Your task to perform on an android device: Search for the best rated 3d printer on Amazon. Image 0: 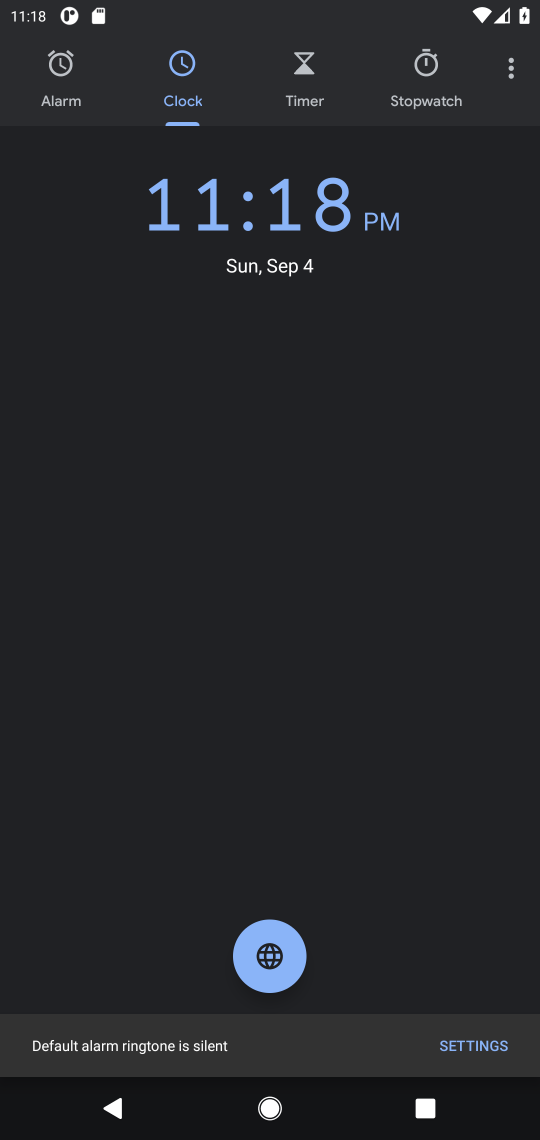
Step 0: press home button
Your task to perform on an android device: Search for the best rated 3d printer on Amazon. Image 1: 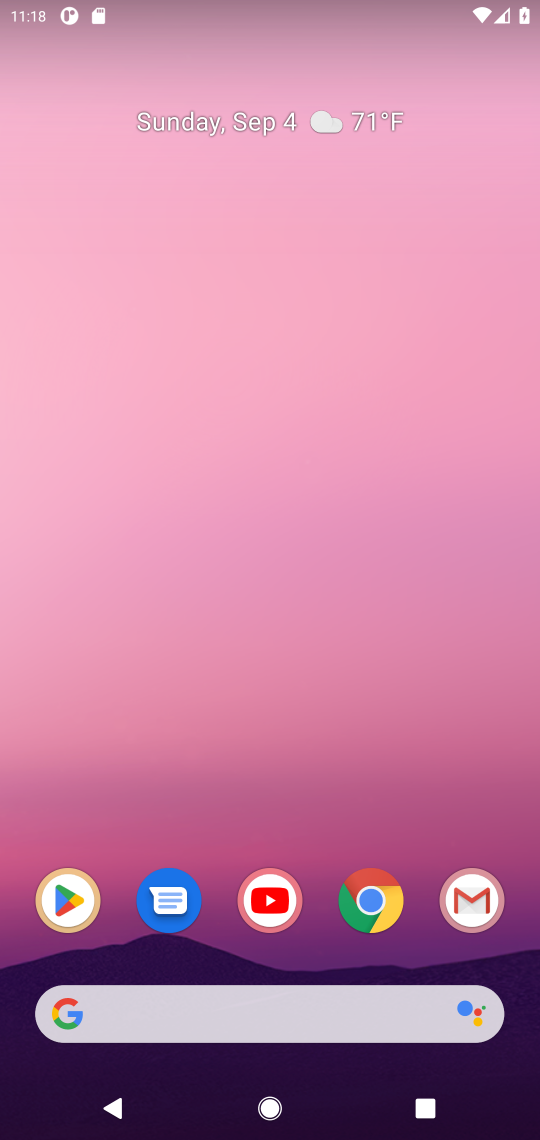
Step 1: click (359, 904)
Your task to perform on an android device: Search for the best rated 3d printer on Amazon. Image 2: 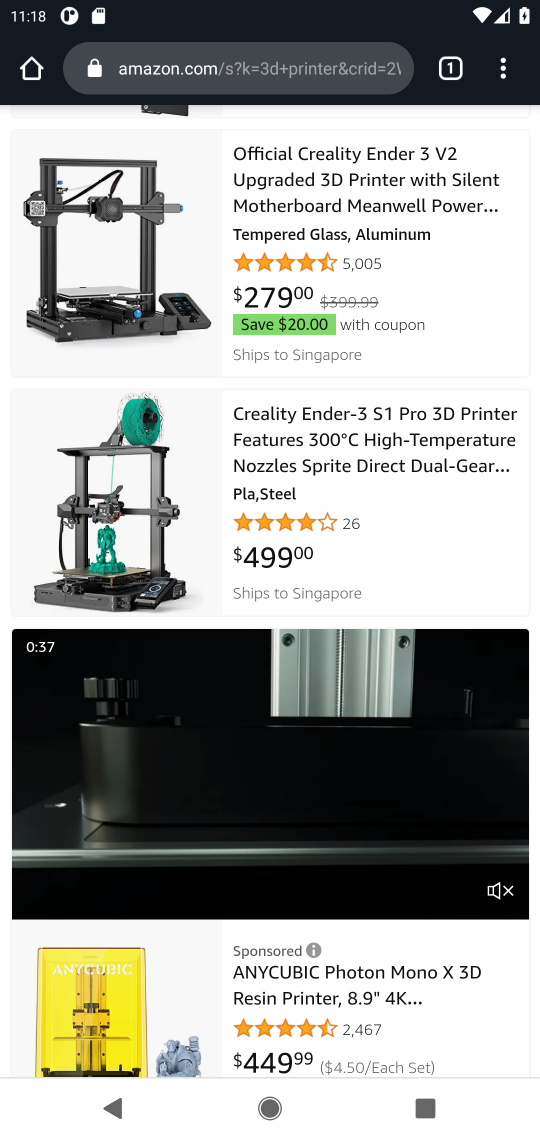
Step 2: click (341, 1040)
Your task to perform on an android device: Search for the best rated 3d printer on Amazon. Image 3: 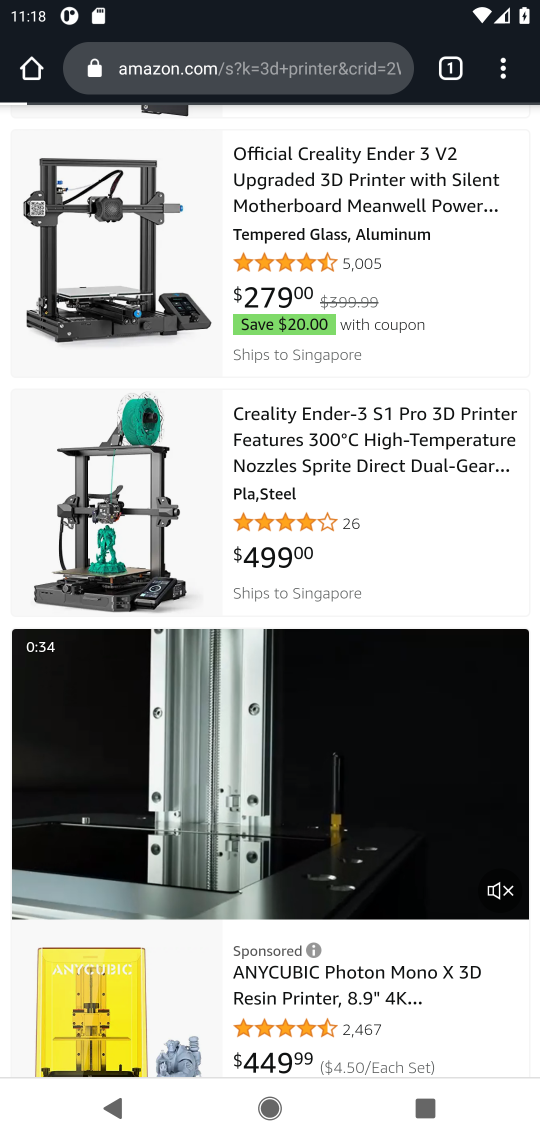
Step 3: task complete